Your task to perform on an android device: show emergency info Image 0: 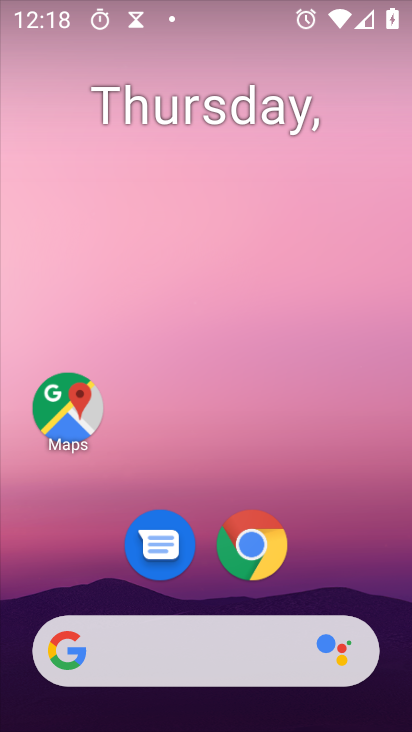
Step 0: press home button
Your task to perform on an android device: show emergency info Image 1: 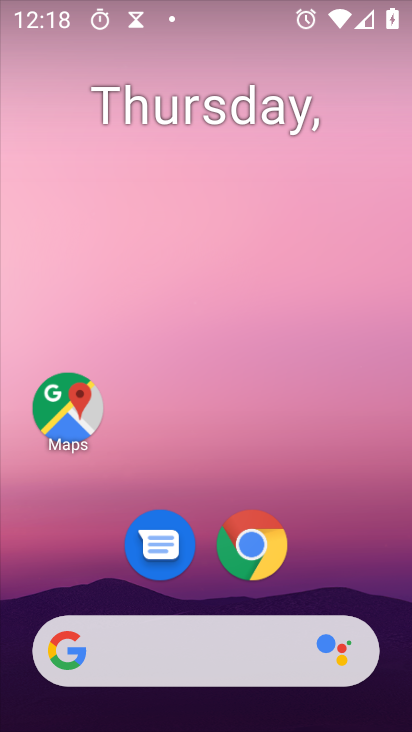
Step 1: drag from (210, 630) to (372, 37)
Your task to perform on an android device: show emergency info Image 2: 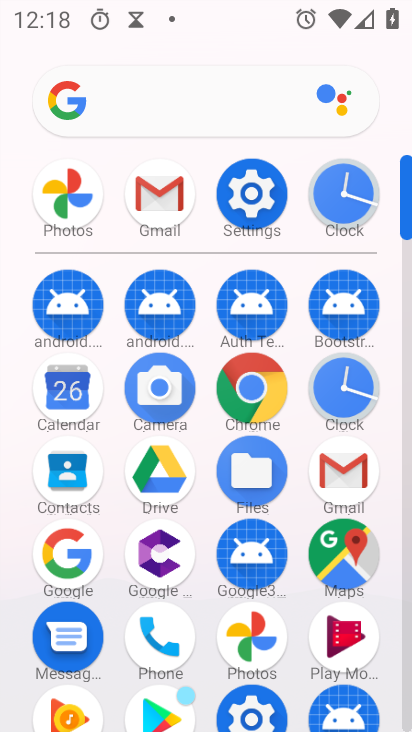
Step 2: click (260, 205)
Your task to perform on an android device: show emergency info Image 3: 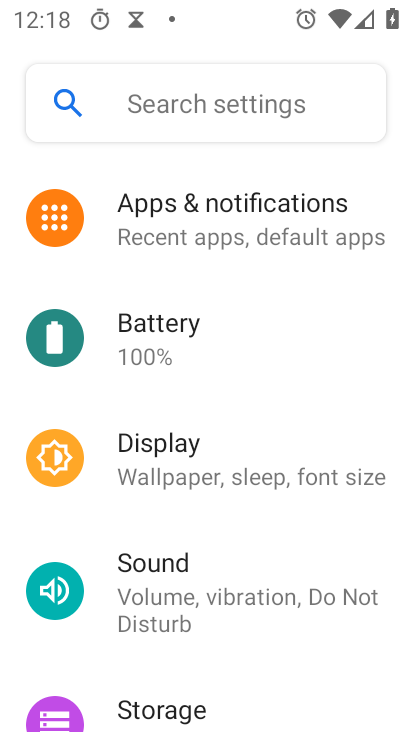
Step 3: drag from (269, 649) to (366, 57)
Your task to perform on an android device: show emergency info Image 4: 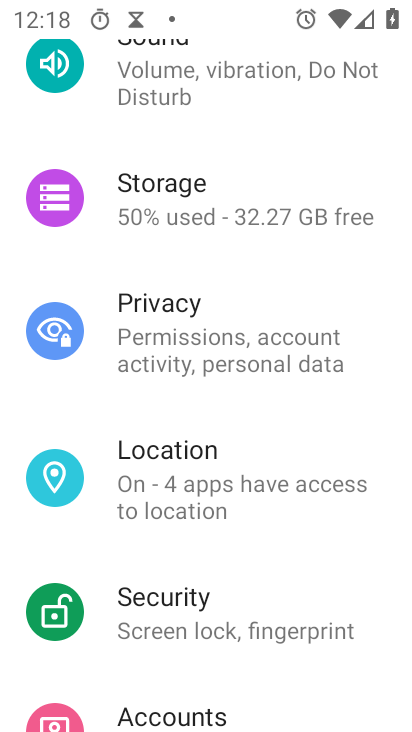
Step 4: drag from (249, 674) to (349, 149)
Your task to perform on an android device: show emergency info Image 5: 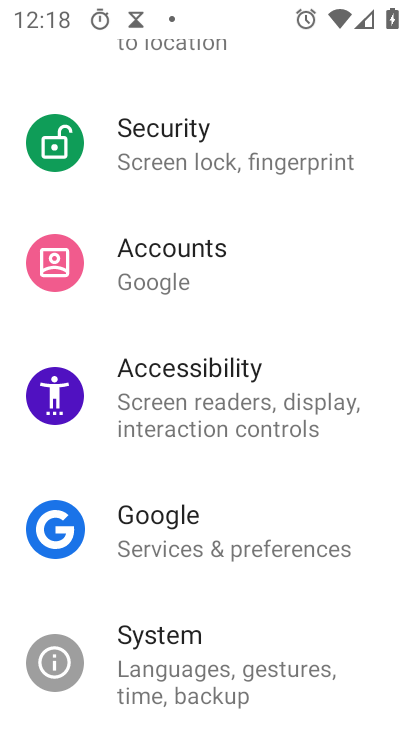
Step 5: drag from (279, 638) to (374, 11)
Your task to perform on an android device: show emergency info Image 6: 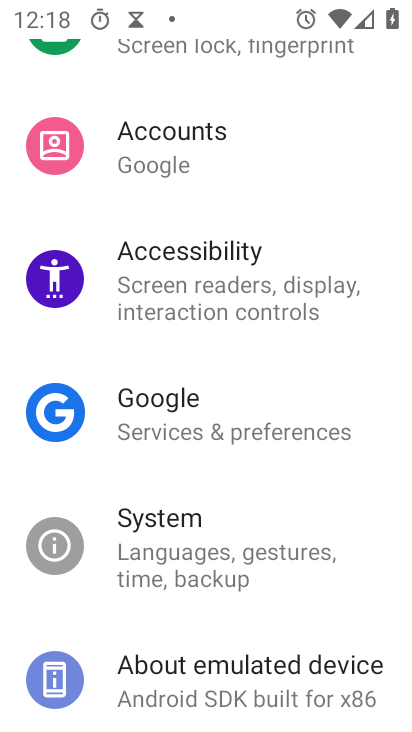
Step 6: click (238, 671)
Your task to perform on an android device: show emergency info Image 7: 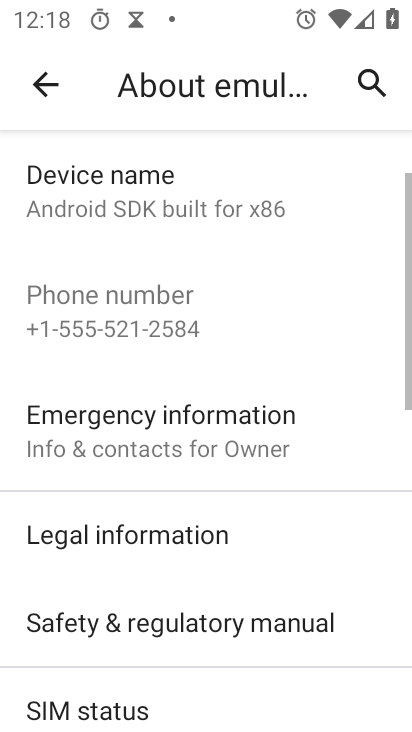
Step 7: click (178, 423)
Your task to perform on an android device: show emergency info Image 8: 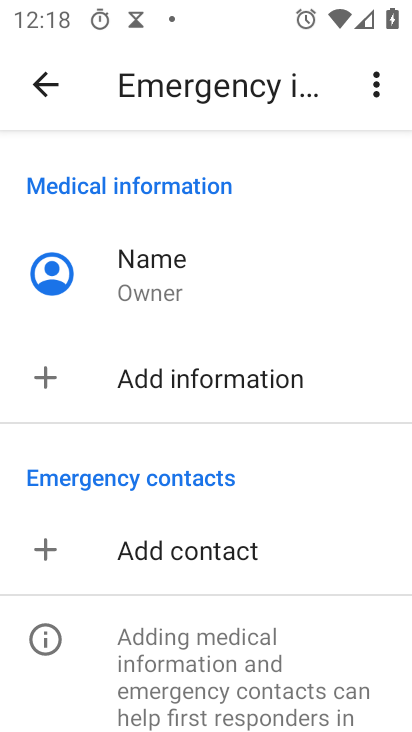
Step 8: task complete